Your task to perform on an android device: Open Amazon Image 0: 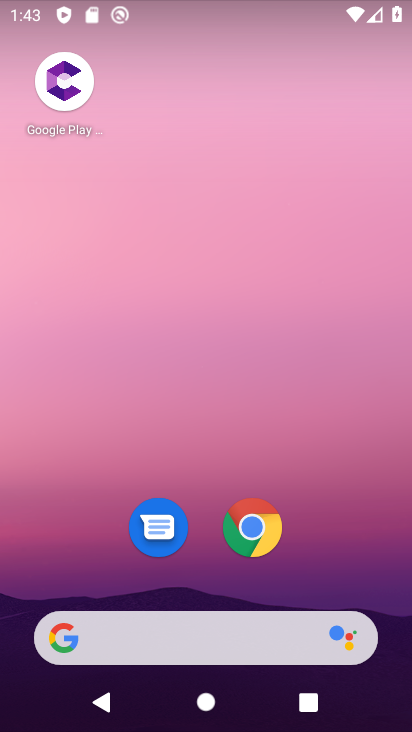
Step 0: click (246, 548)
Your task to perform on an android device: Open Amazon Image 1: 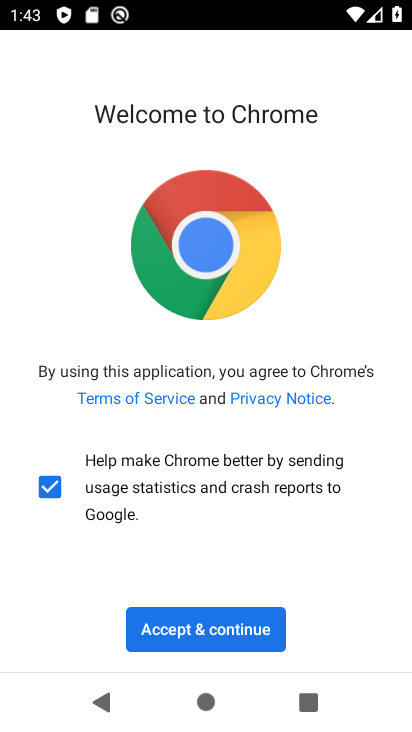
Step 1: click (208, 632)
Your task to perform on an android device: Open Amazon Image 2: 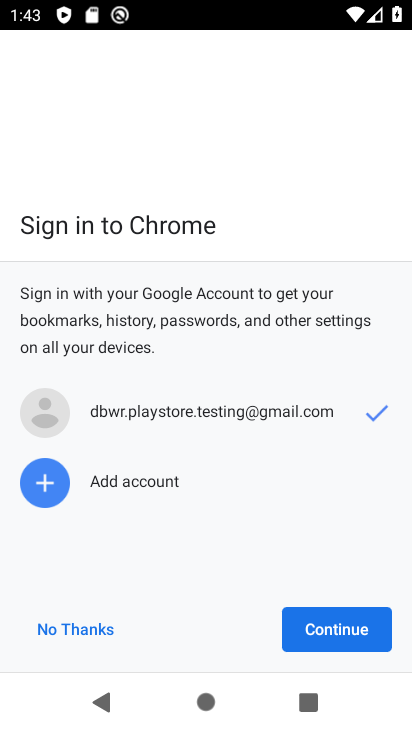
Step 2: click (310, 633)
Your task to perform on an android device: Open Amazon Image 3: 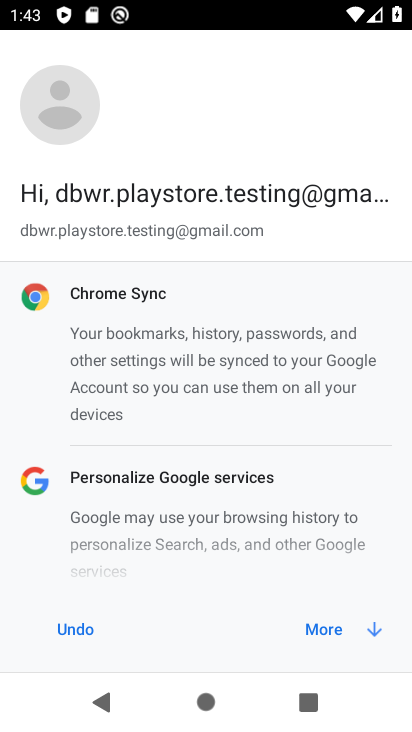
Step 3: click (332, 634)
Your task to perform on an android device: Open Amazon Image 4: 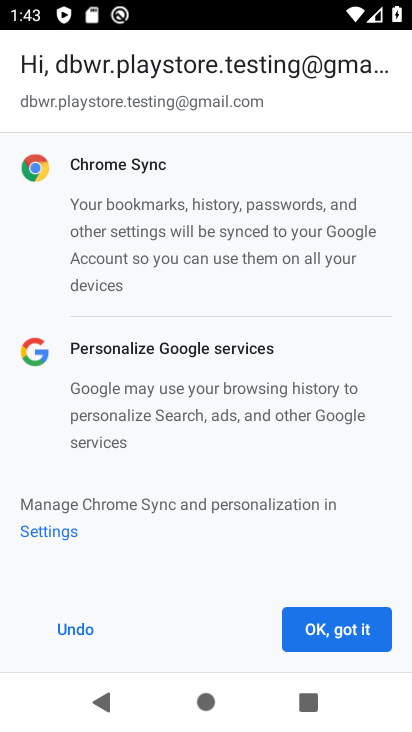
Step 4: click (321, 630)
Your task to perform on an android device: Open Amazon Image 5: 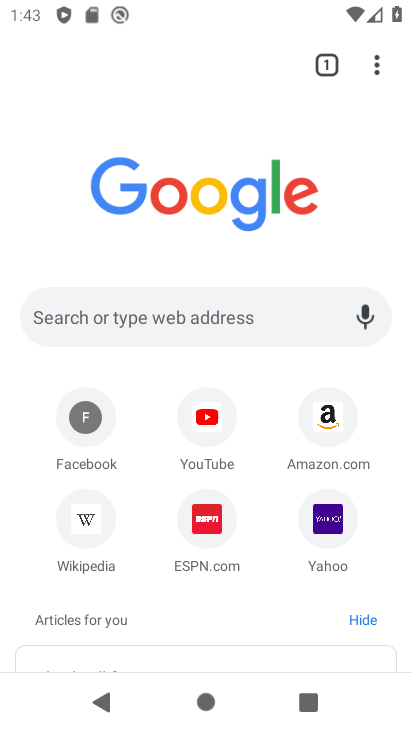
Step 5: click (221, 320)
Your task to perform on an android device: Open Amazon Image 6: 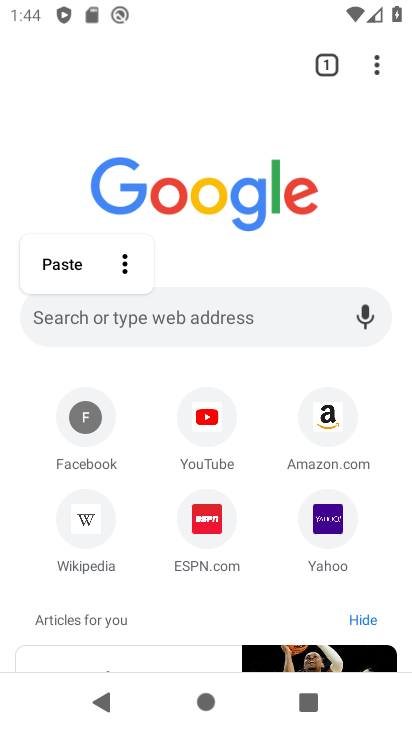
Step 6: type "Amazon"
Your task to perform on an android device: Open Amazon Image 7: 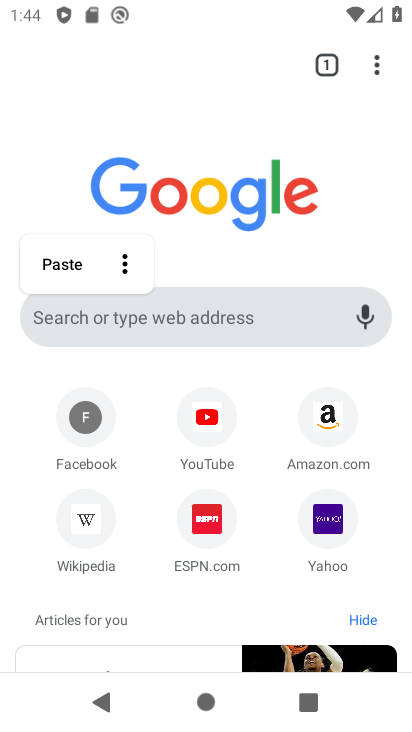
Step 7: click (170, 327)
Your task to perform on an android device: Open Amazon Image 8: 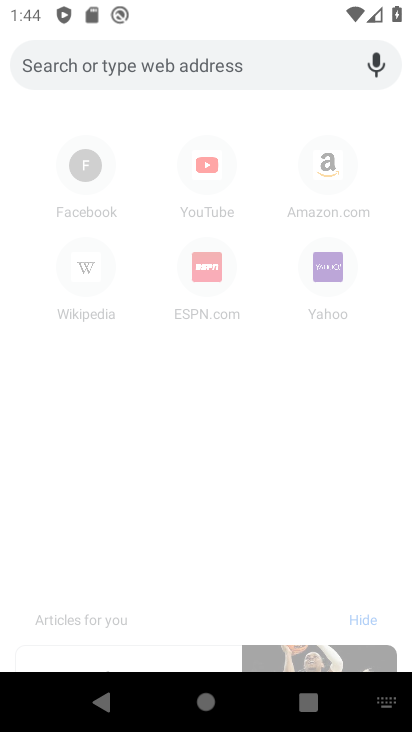
Step 8: type "Amazon"
Your task to perform on an android device: Open Amazon Image 9: 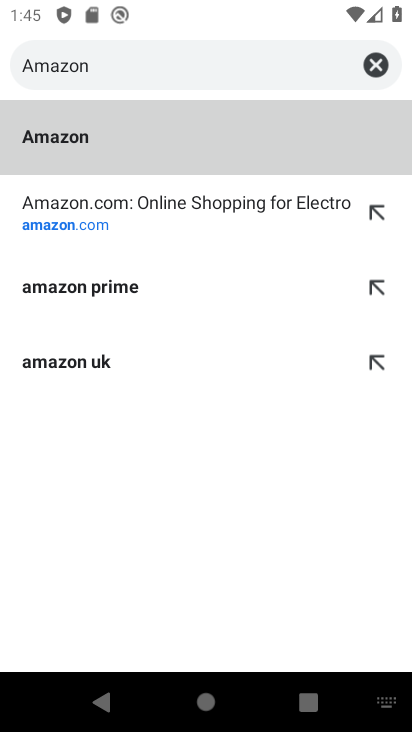
Step 9: click (134, 147)
Your task to perform on an android device: Open Amazon Image 10: 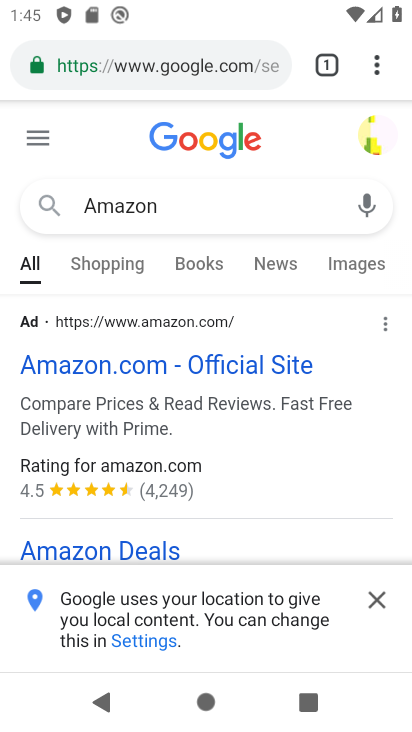
Step 10: click (244, 373)
Your task to perform on an android device: Open Amazon Image 11: 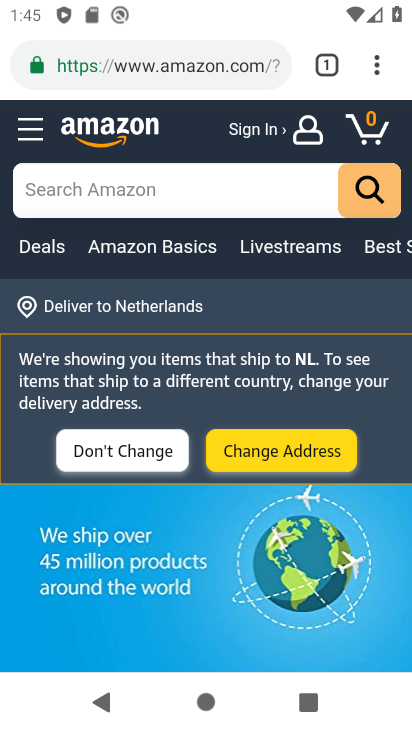
Step 11: task complete